Your task to perform on an android device: Find coffee shops on Maps Image 0: 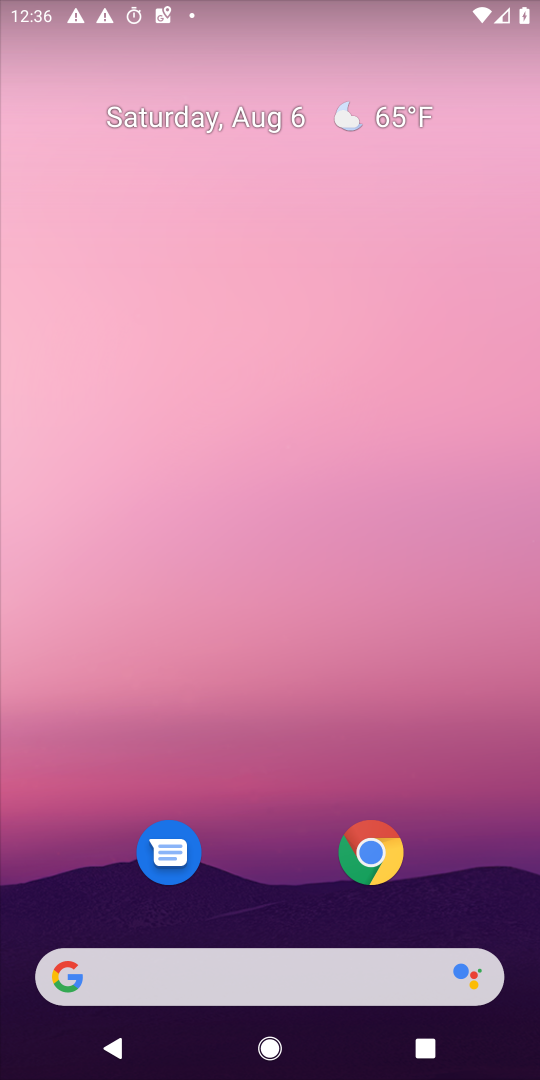
Step 0: drag from (379, 931) to (356, 223)
Your task to perform on an android device: Find coffee shops on Maps Image 1: 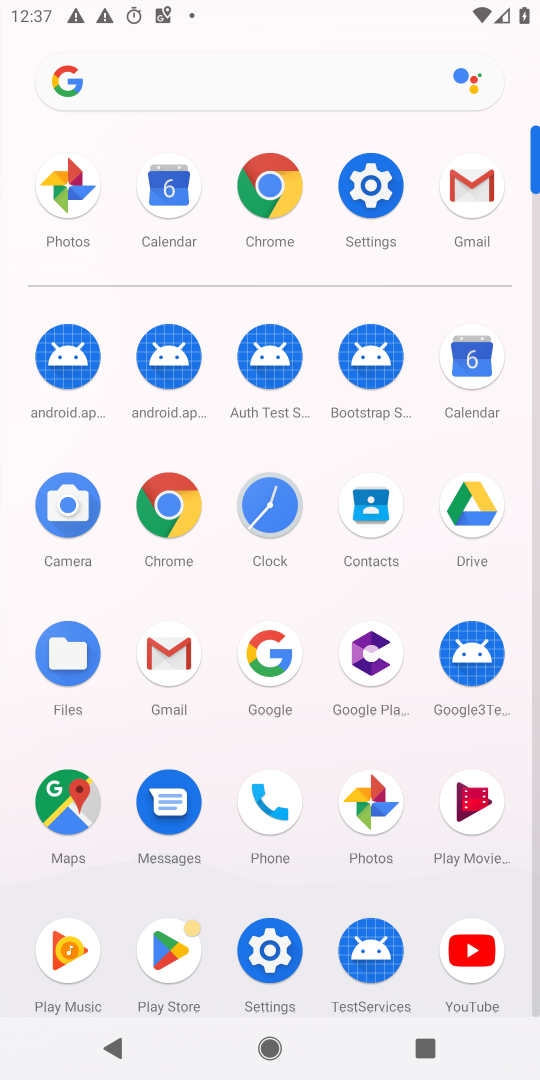
Step 1: click (91, 799)
Your task to perform on an android device: Find coffee shops on Maps Image 2: 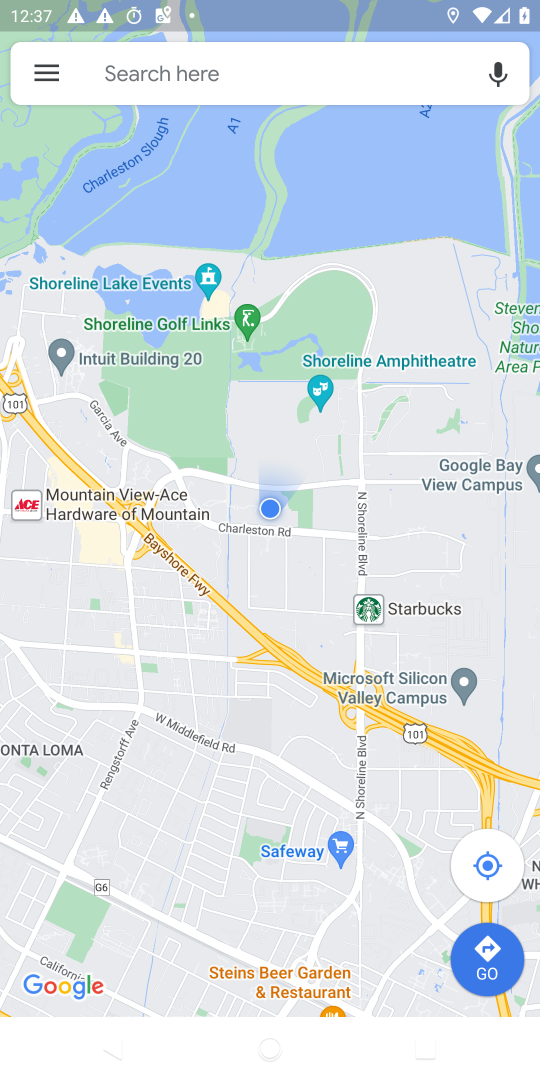
Step 2: click (186, 86)
Your task to perform on an android device: Find coffee shops on Maps Image 3: 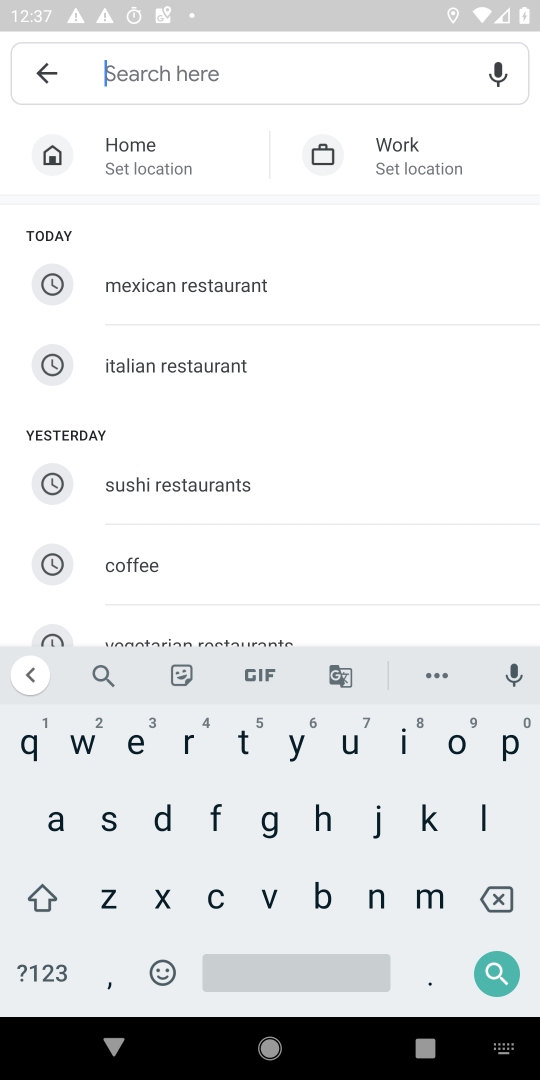
Step 3: click (124, 556)
Your task to perform on an android device: Find coffee shops on Maps Image 4: 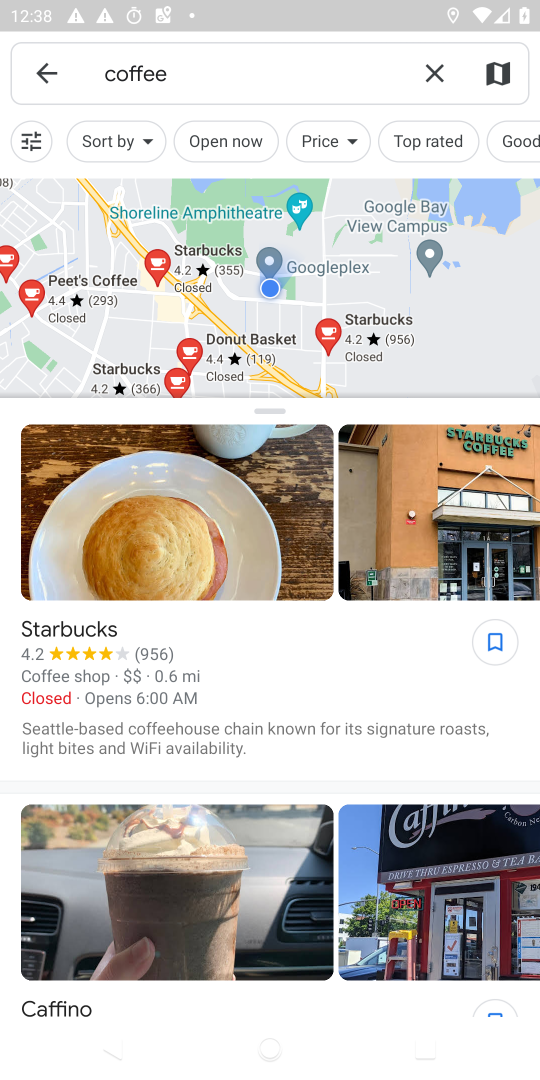
Step 4: task complete